Your task to perform on an android device: When is my next appointment? Image 0: 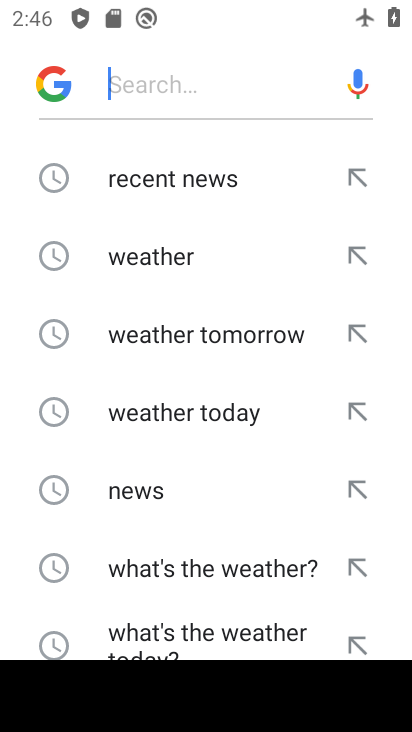
Step 0: press home button
Your task to perform on an android device: When is my next appointment? Image 1: 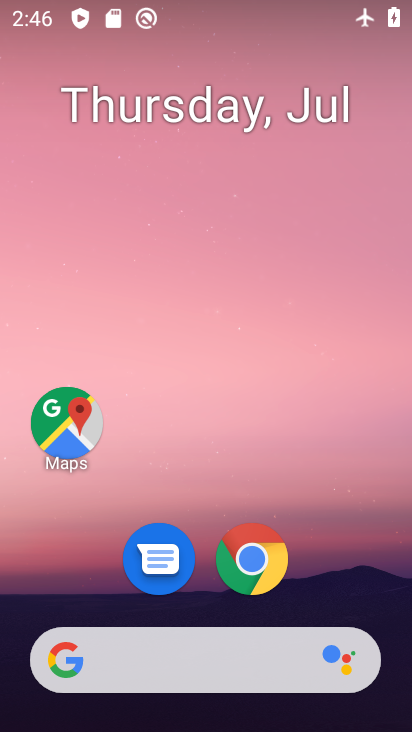
Step 1: drag from (199, 547) to (215, 50)
Your task to perform on an android device: When is my next appointment? Image 2: 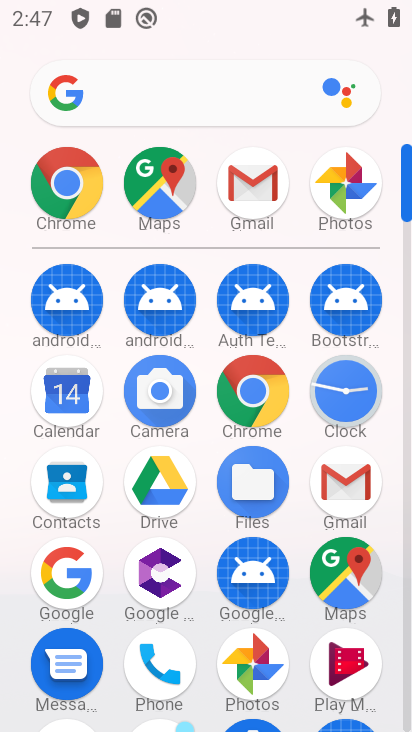
Step 2: click (69, 403)
Your task to perform on an android device: When is my next appointment? Image 3: 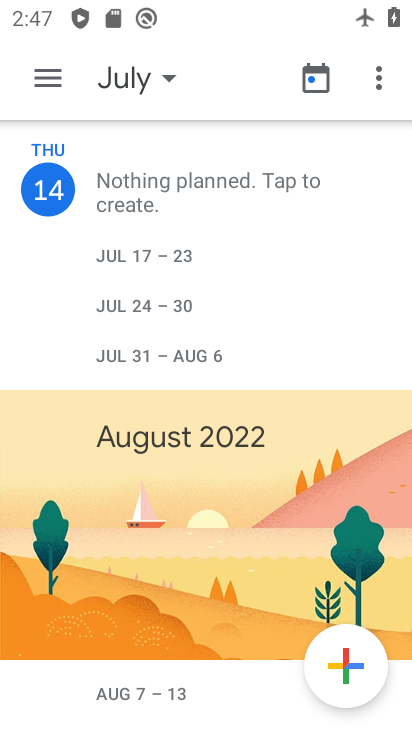
Step 3: click (49, 92)
Your task to perform on an android device: When is my next appointment? Image 4: 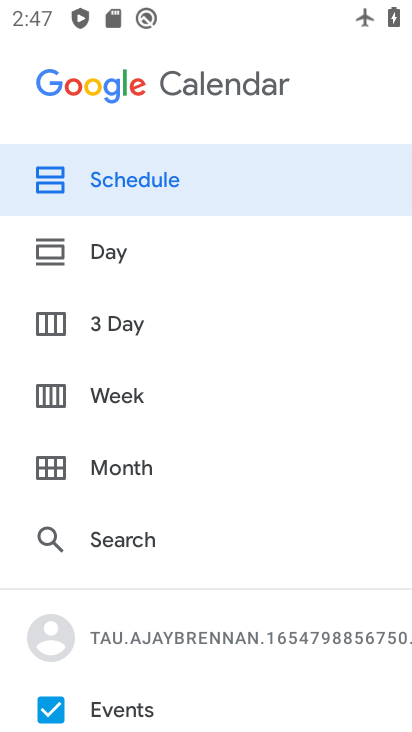
Step 4: drag from (179, 645) to (238, 196)
Your task to perform on an android device: When is my next appointment? Image 5: 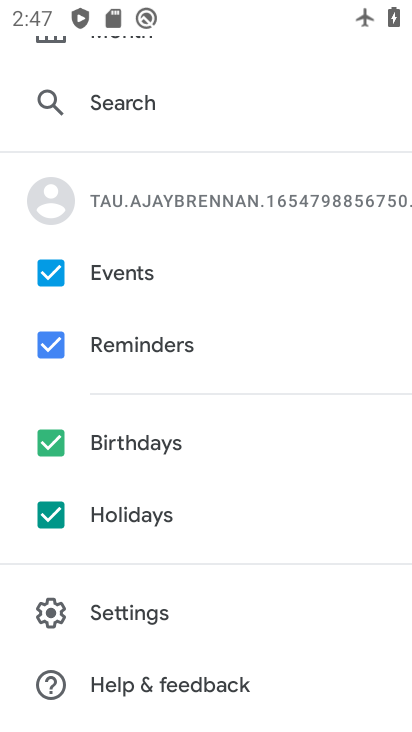
Step 5: click (49, 523)
Your task to perform on an android device: When is my next appointment? Image 6: 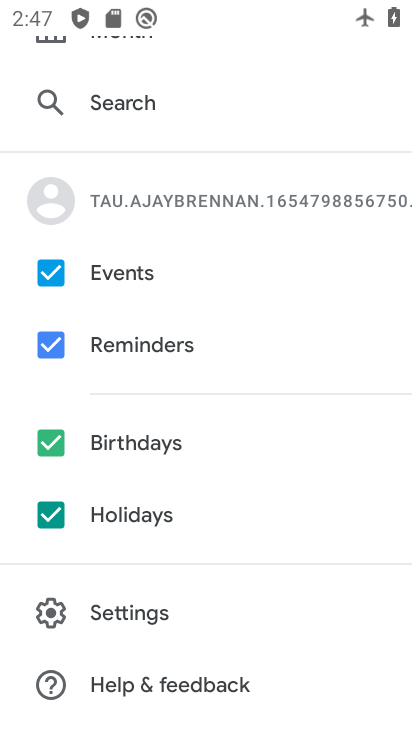
Step 6: click (41, 452)
Your task to perform on an android device: When is my next appointment? Image 7: 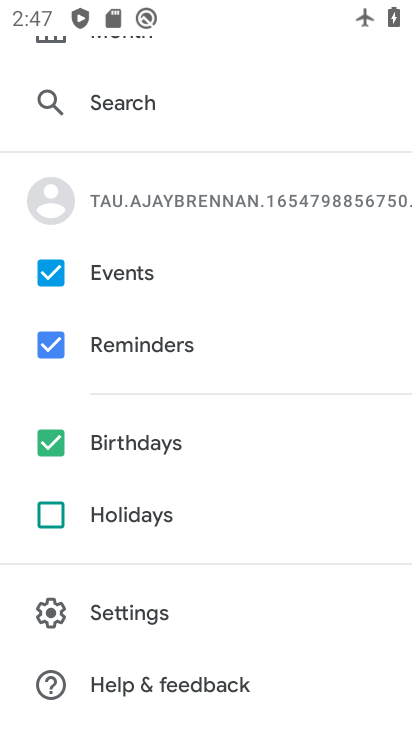
Step 7: task complete